Your task to perform on an android device: refresh tabs in the chrome app Image 0: 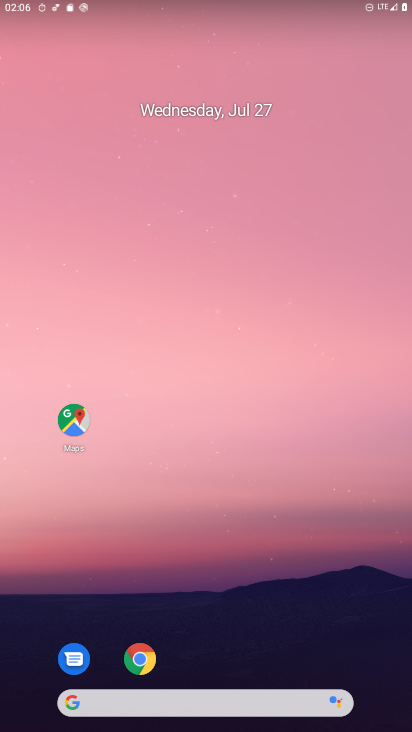
Step 0: drag from (253, 490) to (207, 55)
Your task to perform on an android device: refresh tabs in the chrome app Image 1: 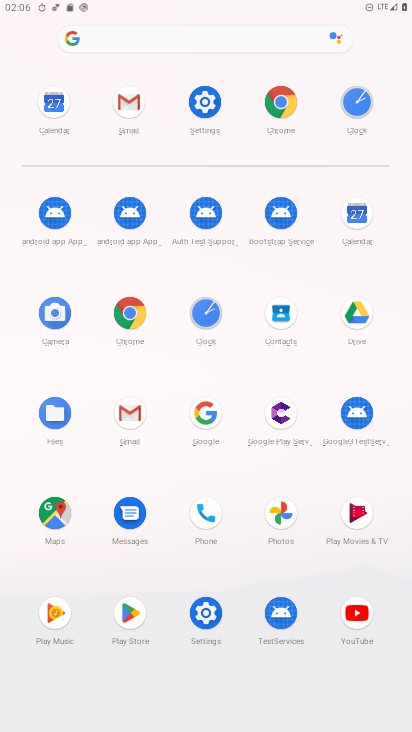
Step 1: click (279, 106)
Your task to perform on an android device: refresh tabs in the chrome app Image 2: 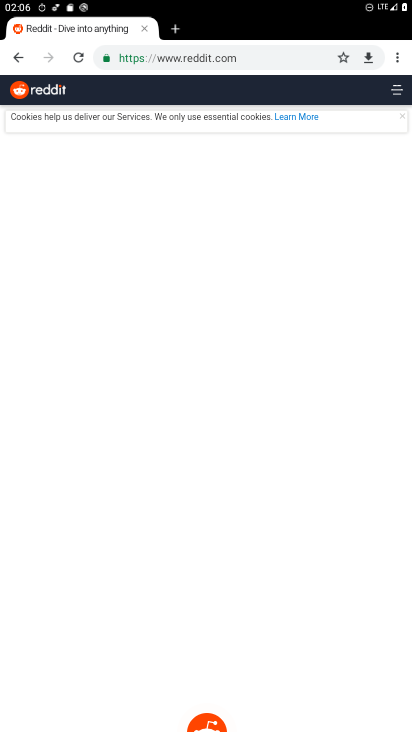
Step 2: drag from (389, 52) to (80, 56)
Your task to perform on an android device: refresh tabs in the chrome app Image 3: 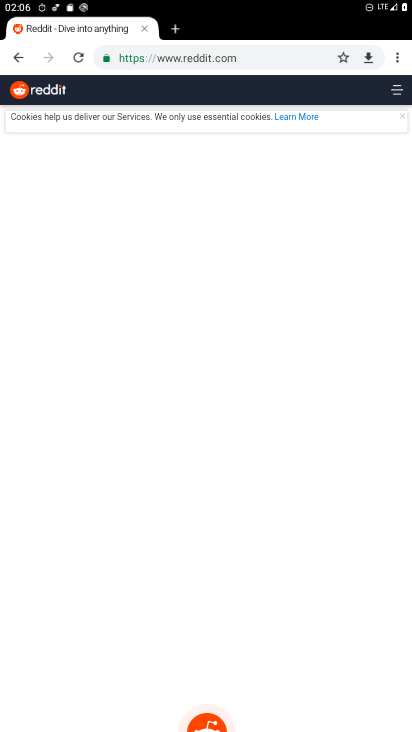
Step 3: click (80, 56)
Your task to perform on an android device: refresh tabs in the chrome app Image 4: 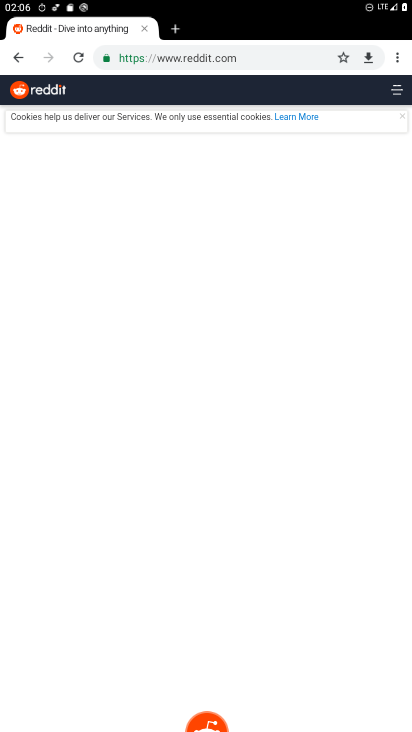
Step 4: task complete